Your task to perform on an android device: Open Reddit.com Image 0: 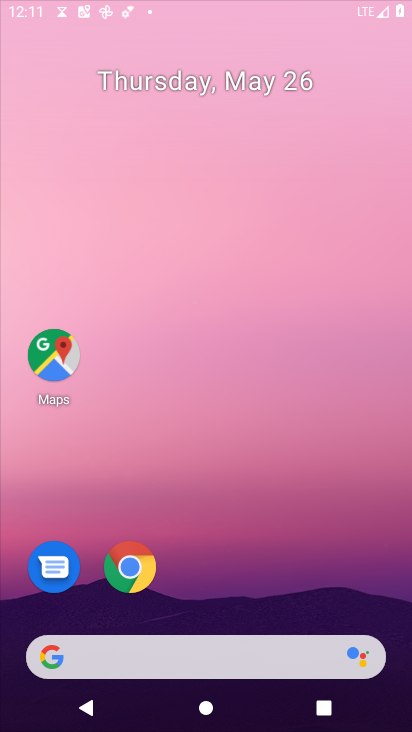
Step 0: click (144, 560)
Your task to perform on an android device: Open Reddit.com Image 1: 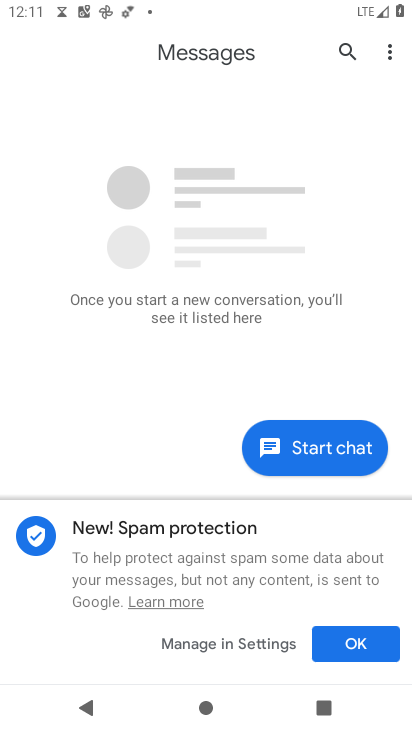
Step 1: press home button
Your task to perform on an android device: Open Reddit.com Image 2: 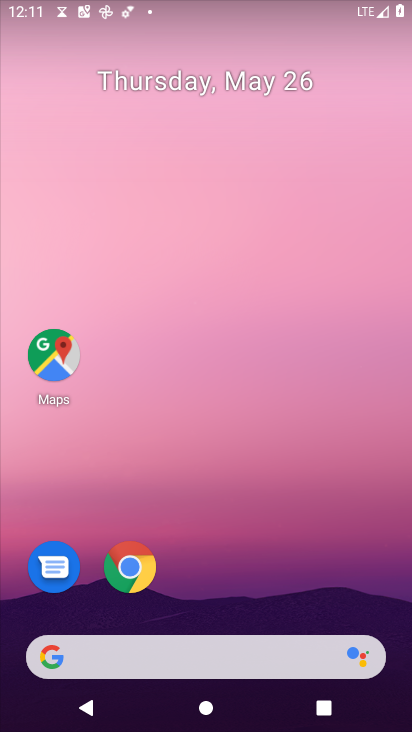
Step 2: click (147, 546)
Your task to perform on an android device: Open Reddit.com Image 3: 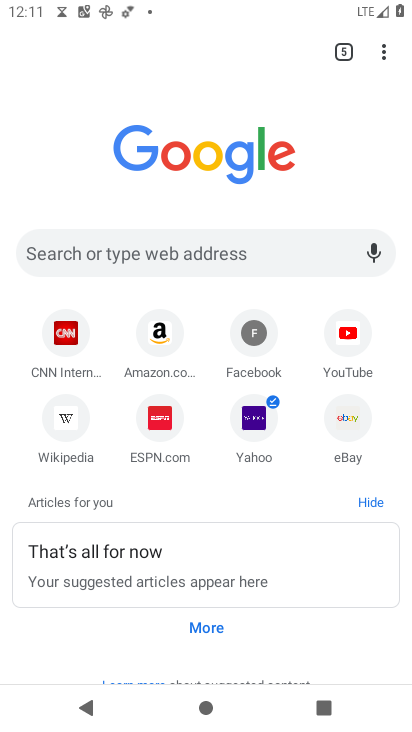
Step 3: click (335, 50)
Your task to perform on an android device: Open Reddit.com Image 4: 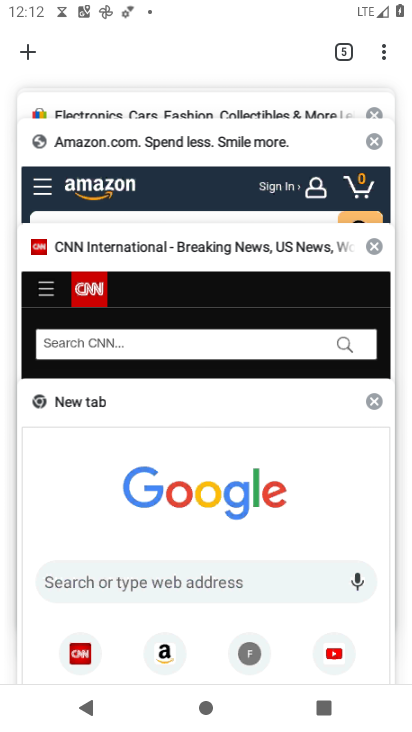
Step 4: drag from (105, 188) to (121, 499)
Your task to perform on an android device: Open Reddit.com Image 5: 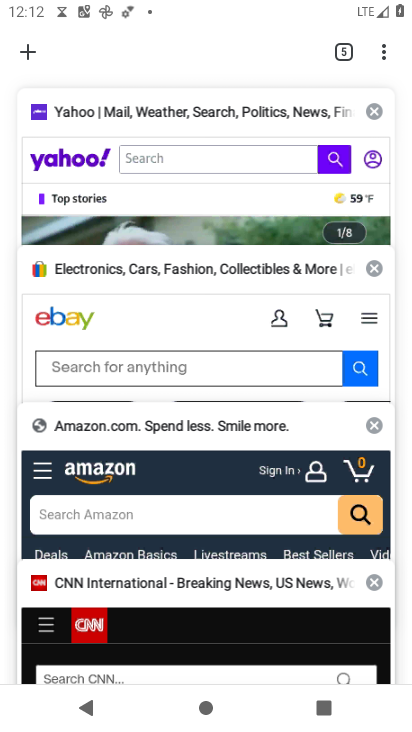
Step 5: drag from (88, 159) to (115, 612)
Your task to perform on an android device: Open Reddit.com Image 6: 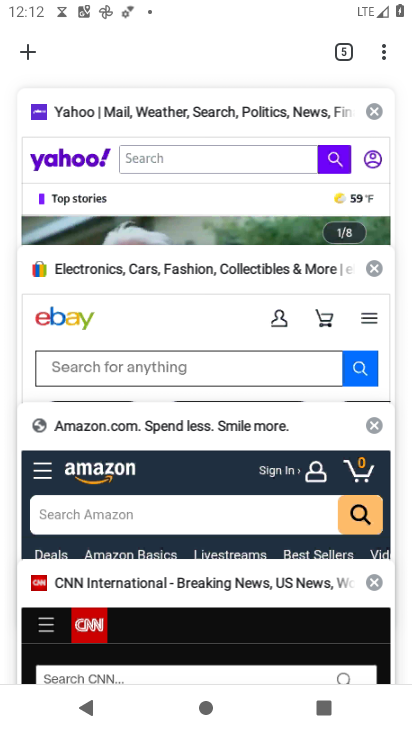
Step 6: click (20, 39)
Your task to perform on an android device: Open Reddit.com Image 7: 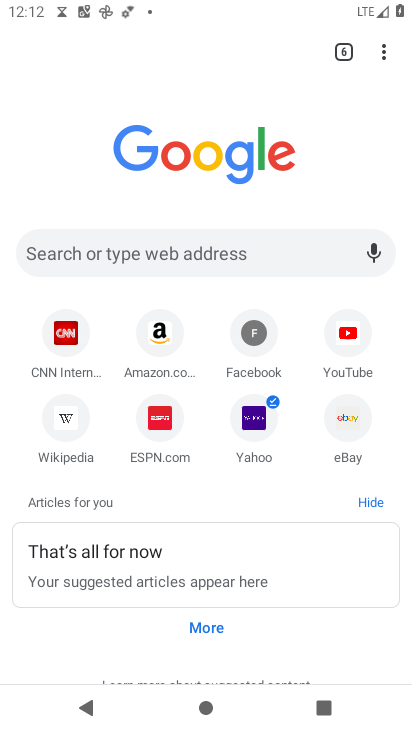
Step 7: click (194, 253)
Your task to perform on an android device: Open Reddit.com Image 8: 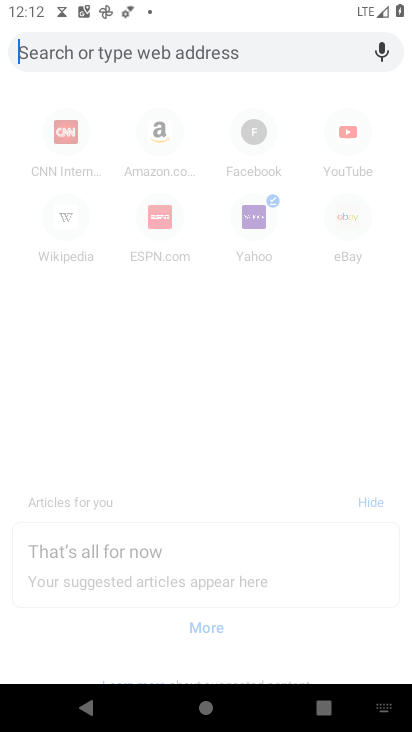
Step 8: type "Reddit.com"
Your task to perform on an android device: Open Reddit.com Image 9: 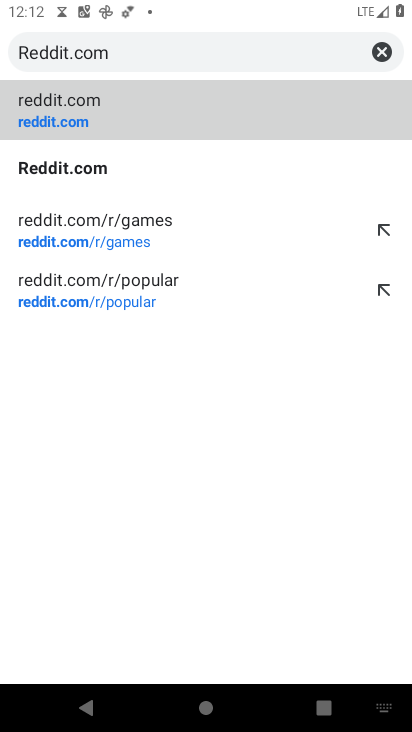
Step 9: click (323, 115)
Your task to perform on an android device: Open Reddit.com Image 10: 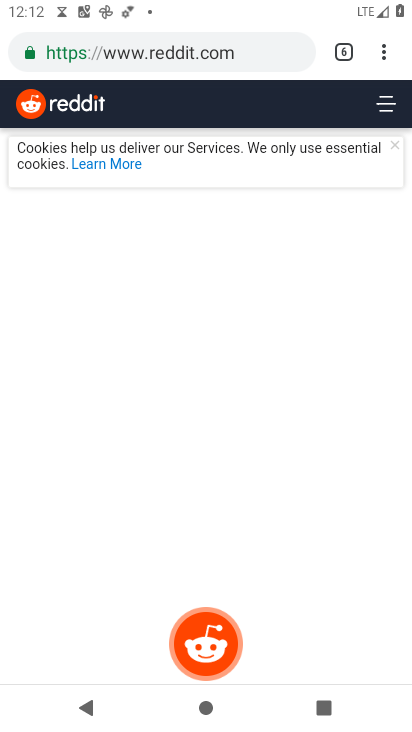
Step 10: task complete